Your task to perform on an android device: turn off location Image 0: 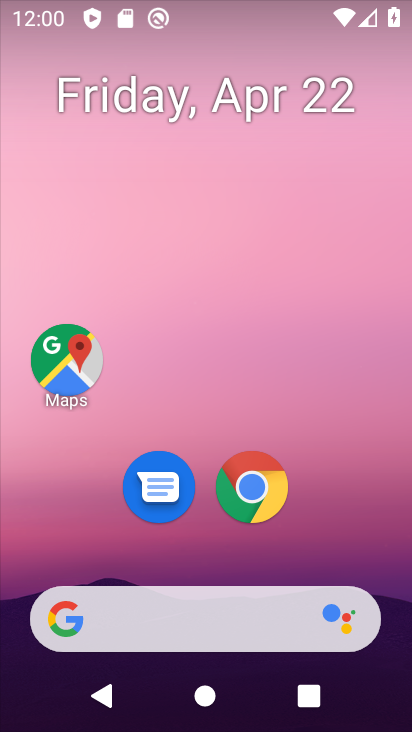
Step 0: drag from (333, 549) to (322, 77)
Your task to perform on an android device: turn off location Image 1: 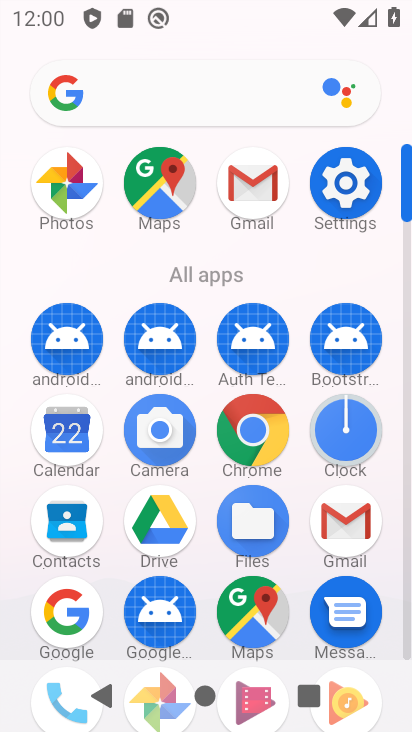
Step 1: click (344, 189)
Your task to perform on an android device: turn off location Image 2: 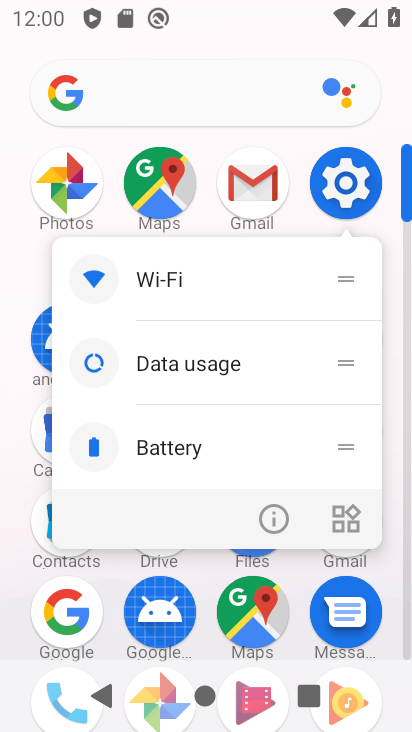
Step 2: click (344, 192)
Your task to perform on an android device: turn off location Image 3: 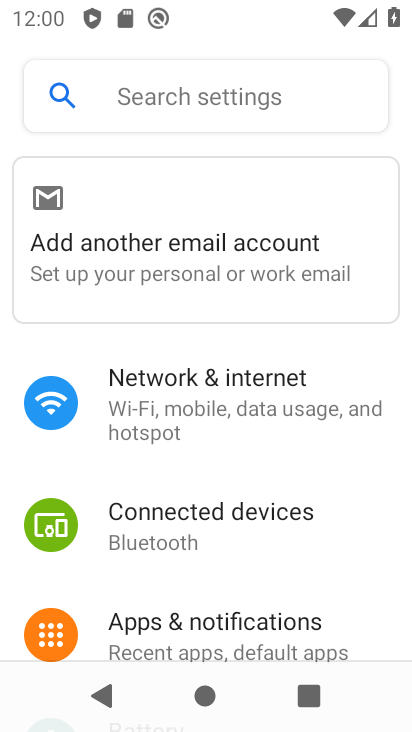
Step 3: drag from (286, 610) to (314, 180)
Your task to perform on an android device: turn off location Image 4: 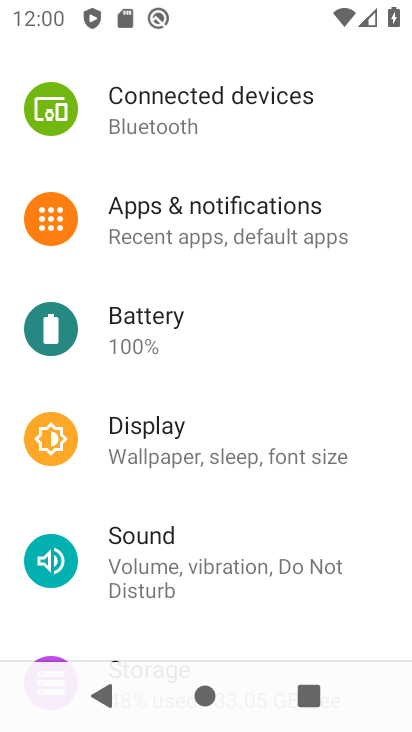
Step 4: drag from (256, 592) to (237, 213)
Your task to perform on an android device: turn off location Image 5: 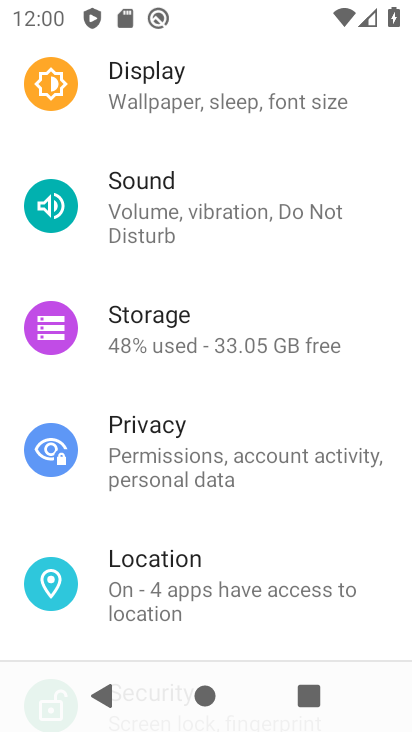
Step 5: click (247, 574)
Your task to perform on an android device: turn off location Image 6: 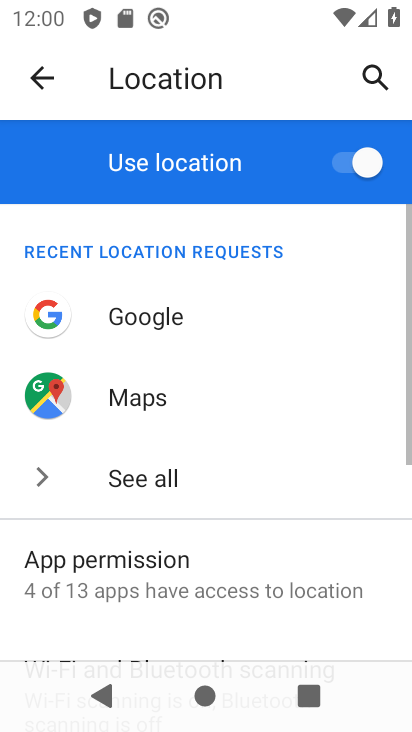
Step 6: click (340, 165)
Your task to perform on an android device: turn off location Image 7: 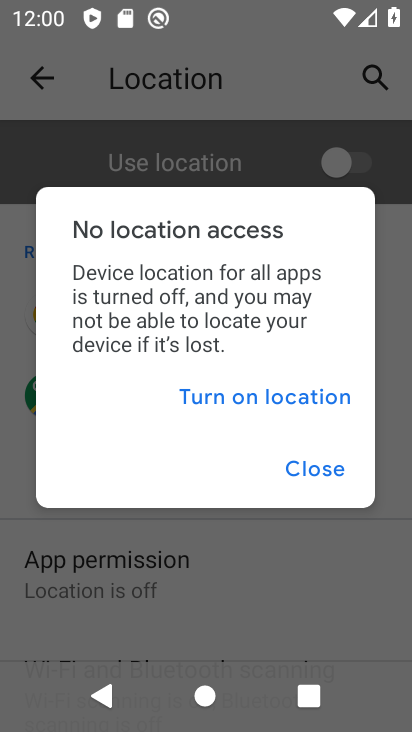
Step 7: task complete